Your task to perform on an android device: Google the capital of Ecuador Image 0: 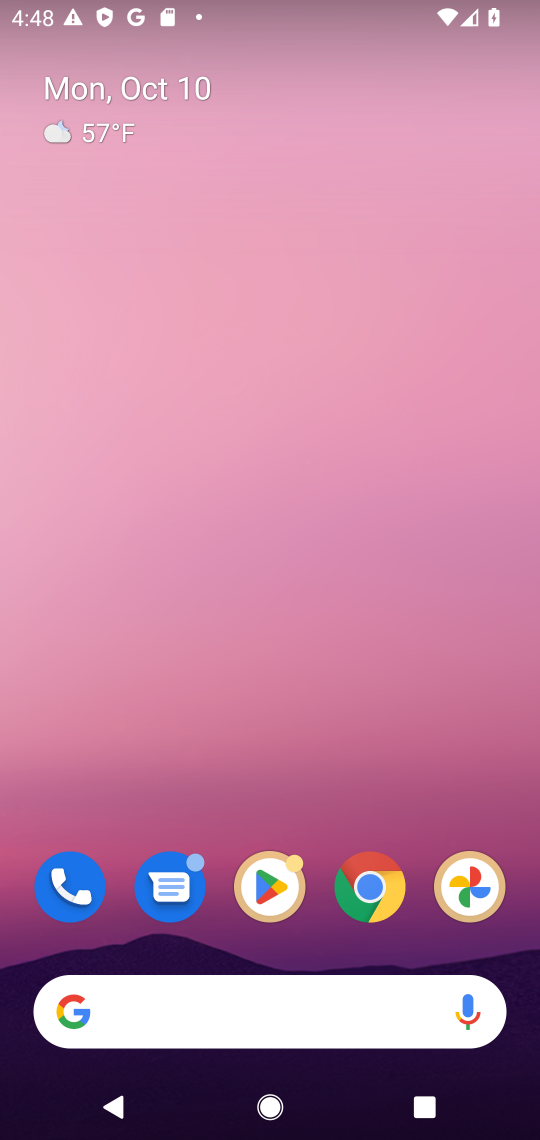
Step 0: click (362, 883)
Your task to perform on an android device: Google the capital of Ecuador Image 1: 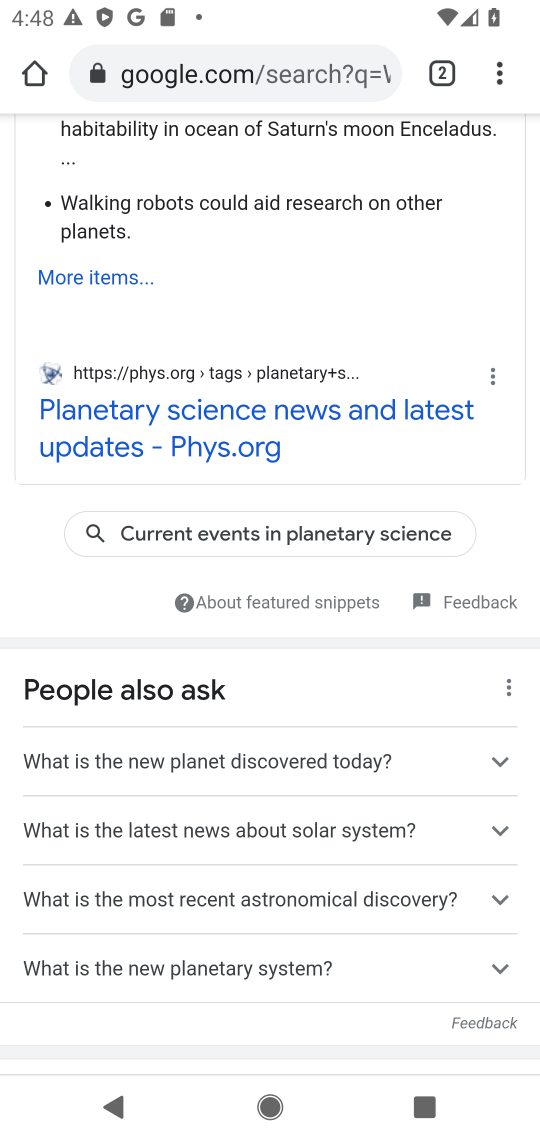
Step 1: click (251, 74)
Your task to perform on an android device: Google the capital of Ecuador Image 2: 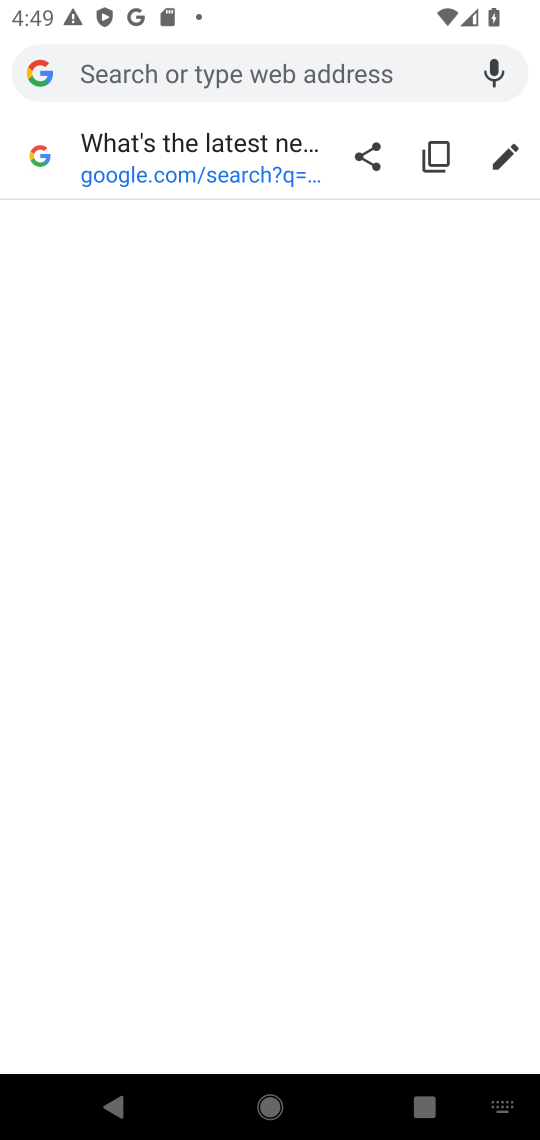
Step 2: type "capital of Ecuador"
Your task to perform on an android device: Google the capital of Ecuador Image 3: 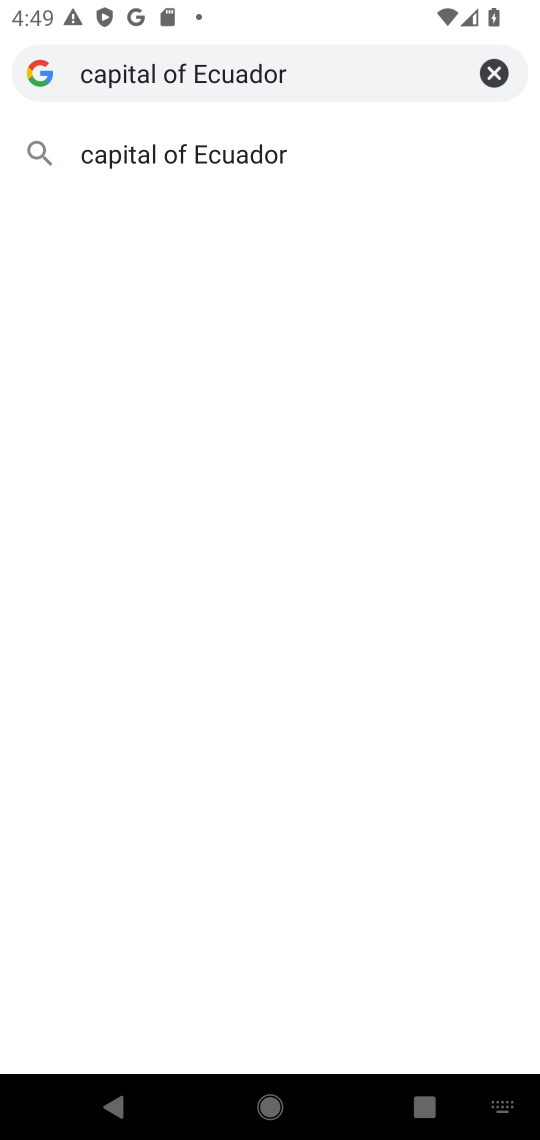
Step 3: click (221, 67)
Your task to perform on an android device: Google the capital of Ecuador Image 4: 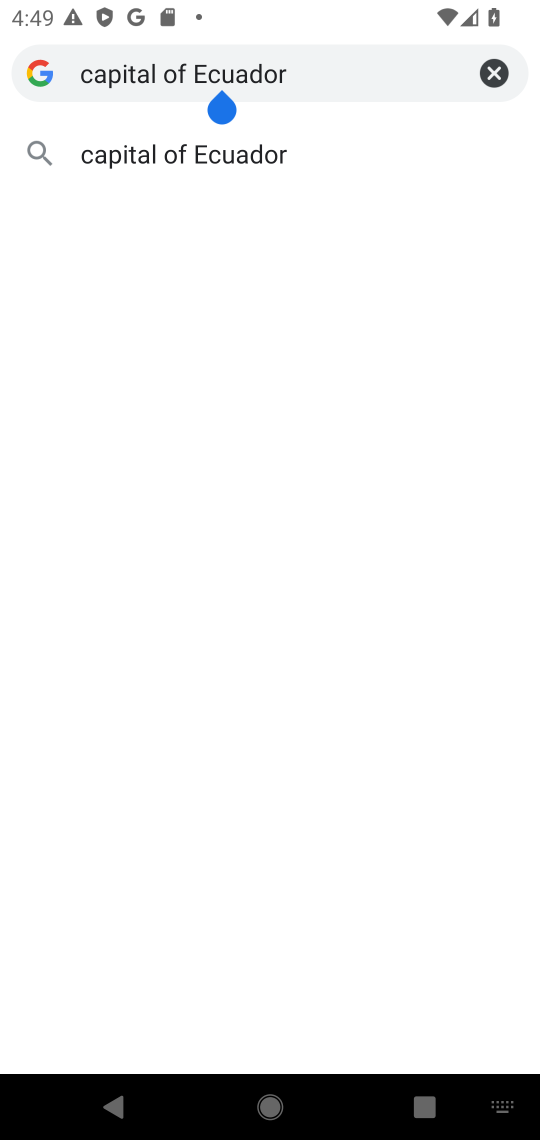
Step 4: click (232, 175)
Your task to perform on an android device: Google the capital of Ecuador Image 5: 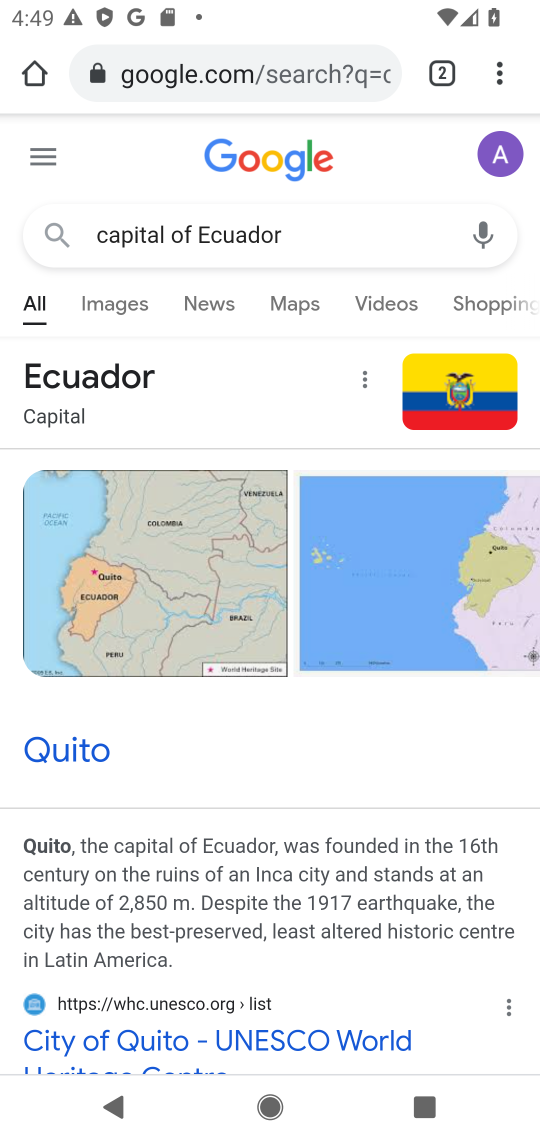
Step 5: task complete